Your task to perform on an android device: Go to battery settings Image 0: 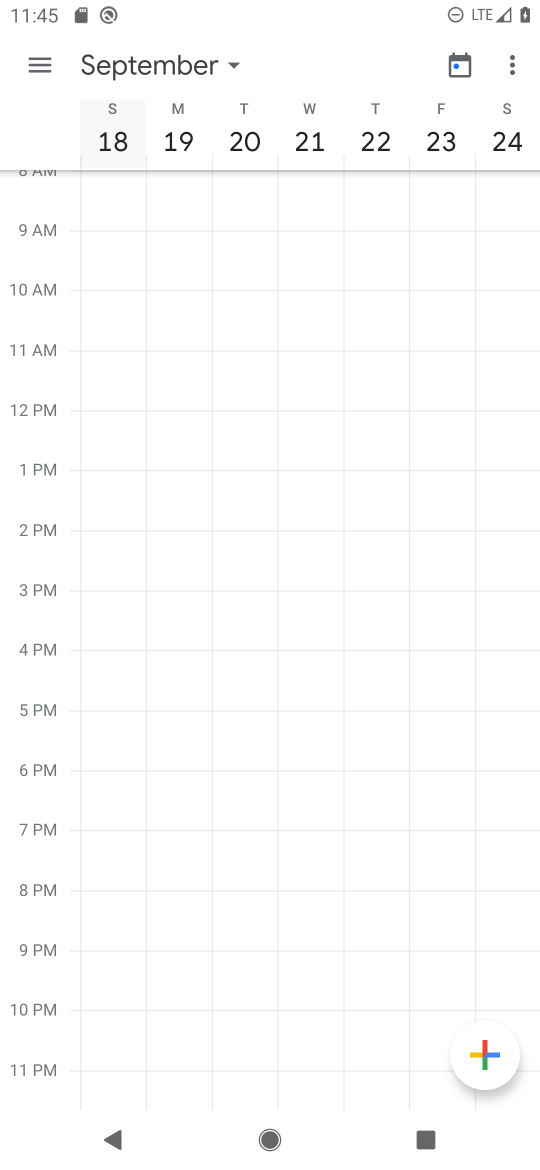
Step 0: press home button
Your task to perform on an android device: Go to battery settings Image 1: 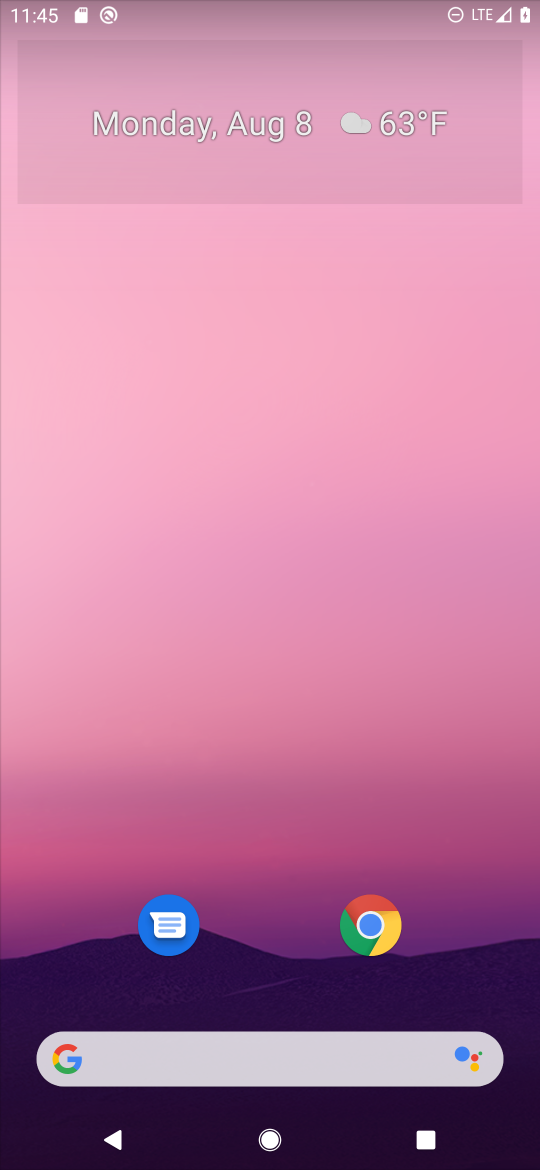
Step 1: drag from (251, 860) to (365, 151)
Your task to perform on an android device: Go to battery settings Image 2: 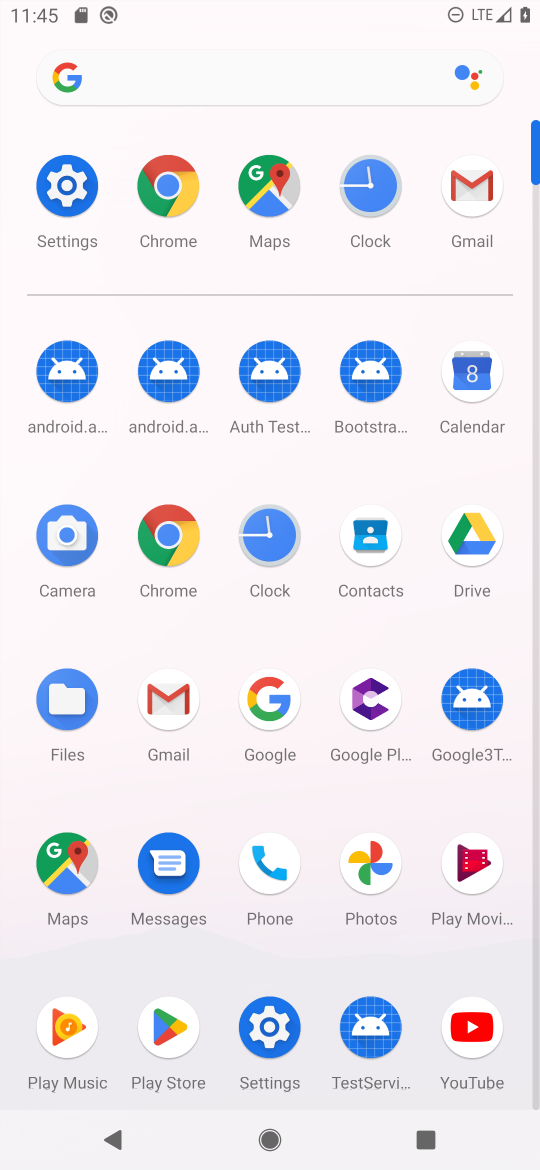
Step 2: click (277, 1029)
Your task to perform on an android device: Go to battery settings Image 3: 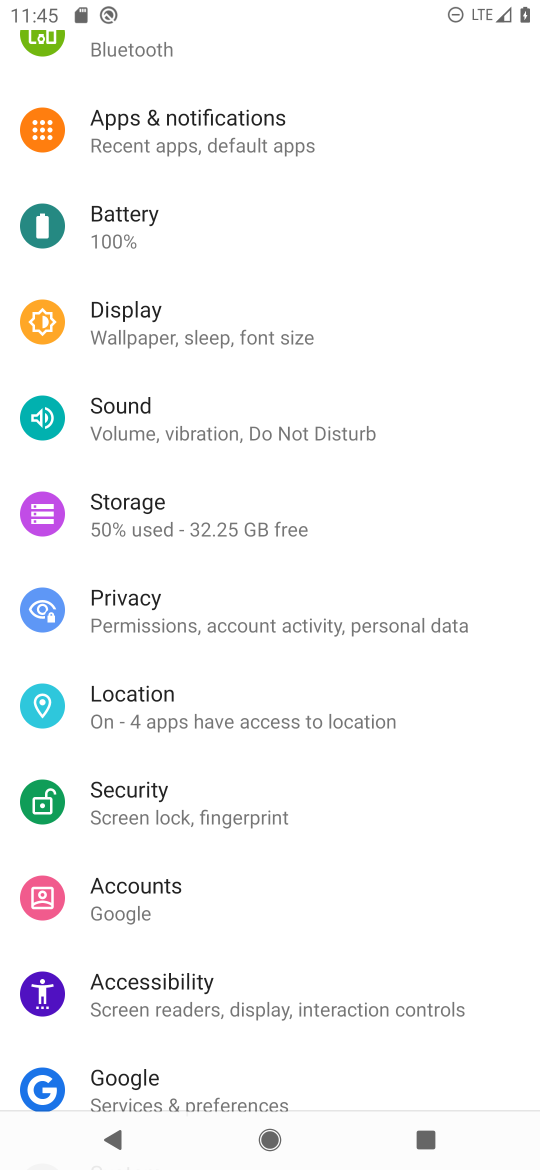
Step 3: drag from (234, 236) to (263, 781)
Your task to perform on an android device: Go to battery settings Image 4: 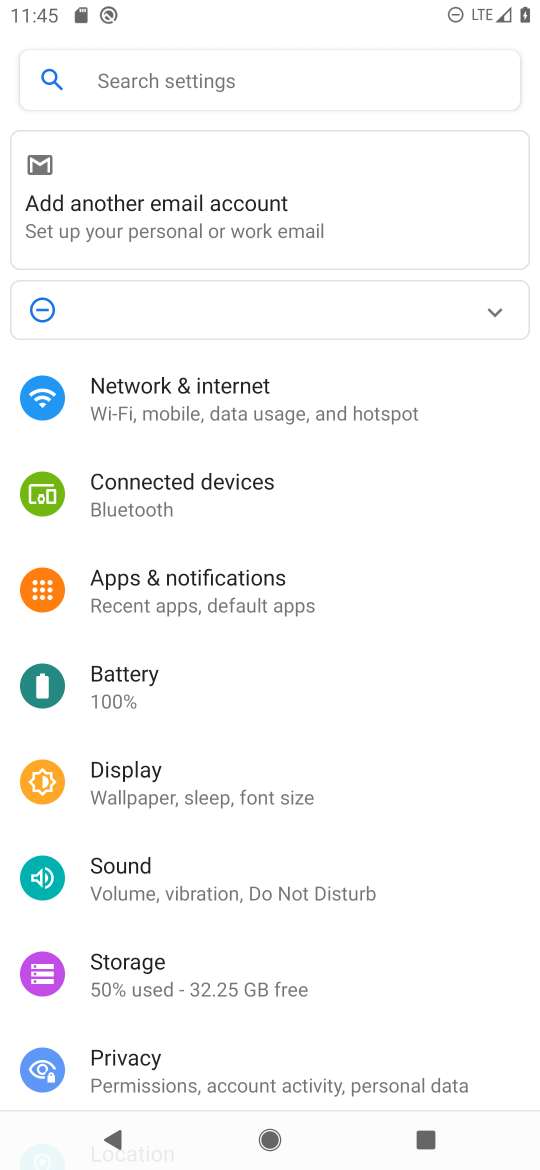
Step 4: click (152, 493)
Your task to perform on an android device: Go to battery settings Image 5: 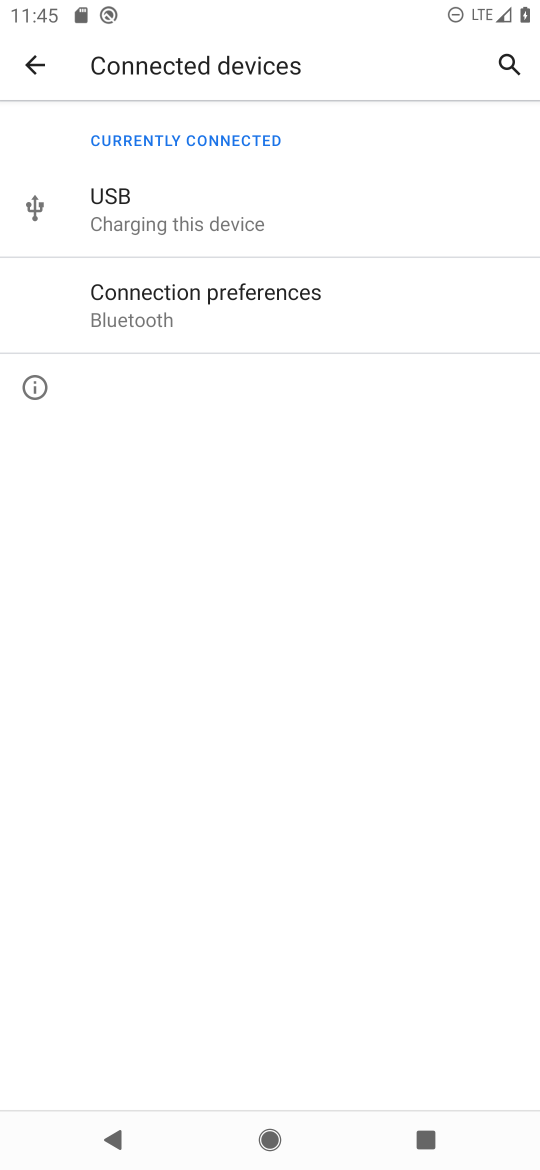
Step 5: press back button
Your task to perform on an android device: Go to battery settings Image 6: 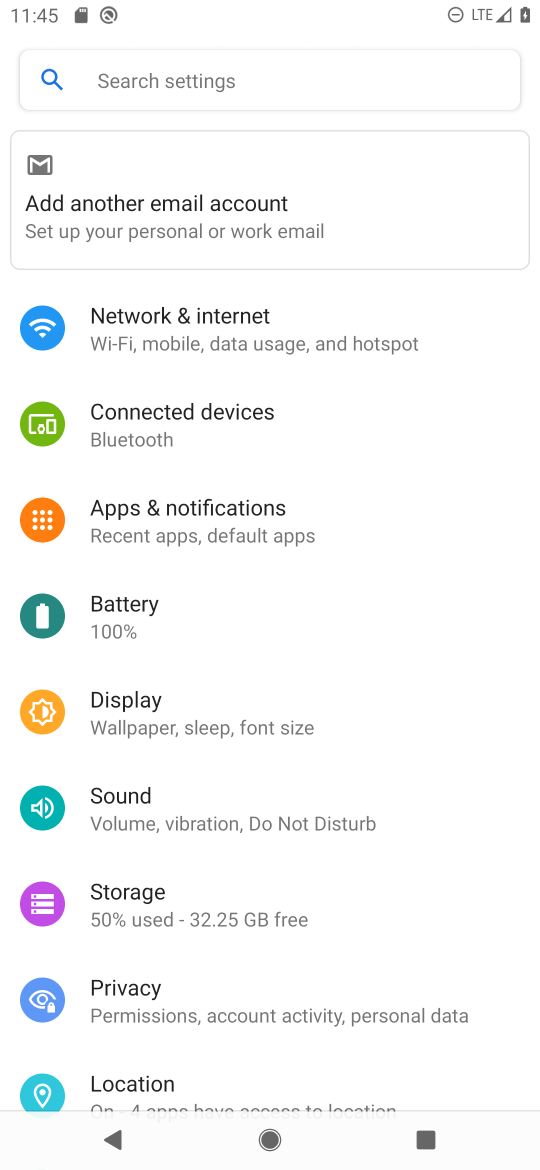
Step 6: click (126, 605)
Your task to perform on an android device: Go to battery settings Image 7: 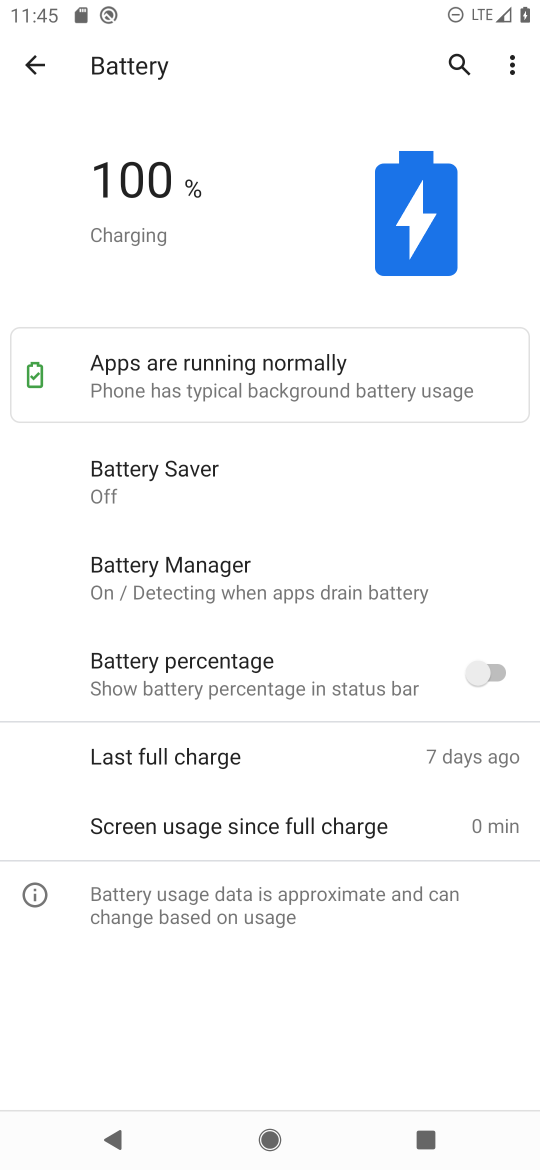
Step 7: task complete